Your task to perform on an android device: Open settings on Google Maps Image 0: 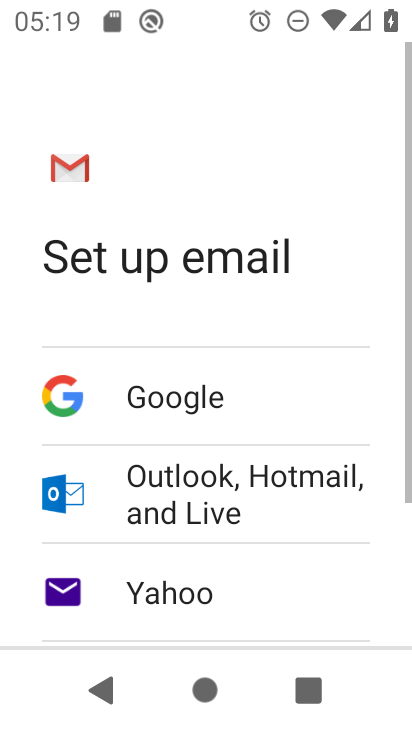
Step 0: press home button
Your task to perform on an android device: Open settings on Google Maps Image 1: 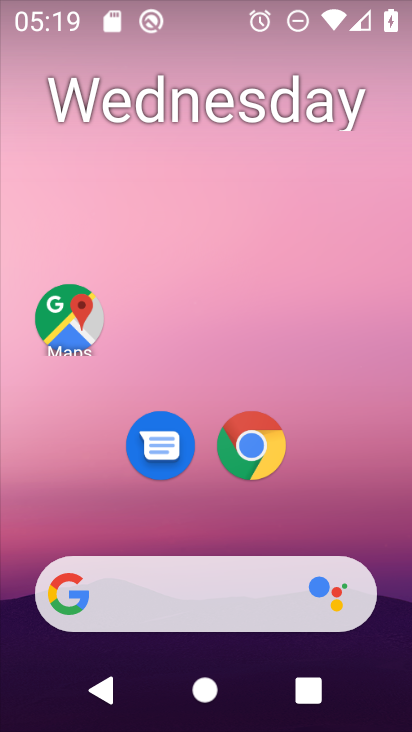
Step 1: click (71, 322)
Your task to perform on an android device: Open settings on Google Maps Image 2: 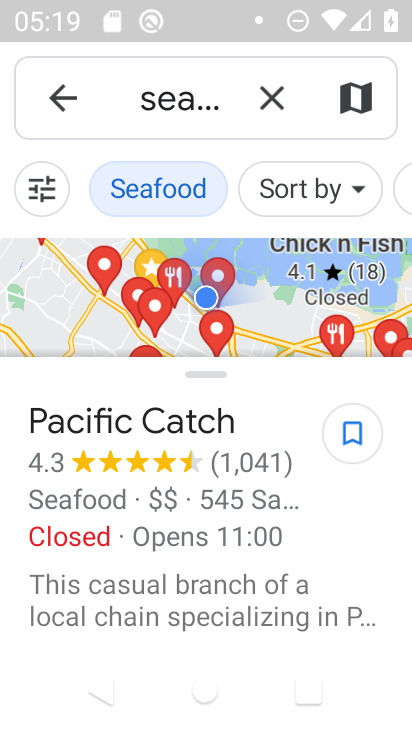
Step 2: click (51, 98)
Your task to perform on an android device: Open settings on Google Maps Image 3: 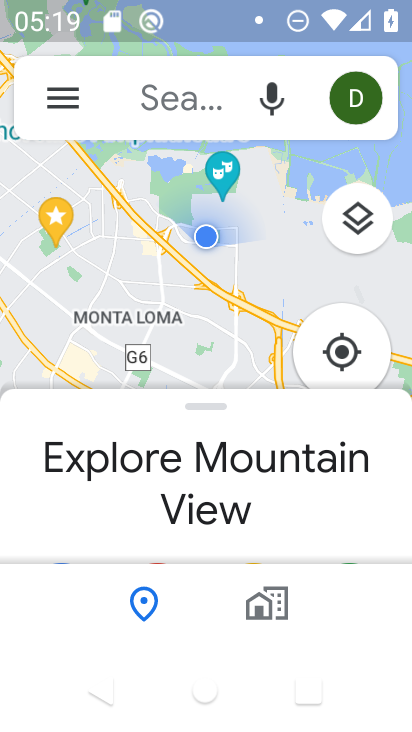
Step 3: click (51, 98)
Your task to perform on an android device: Open settings on Google Maps Image 4: 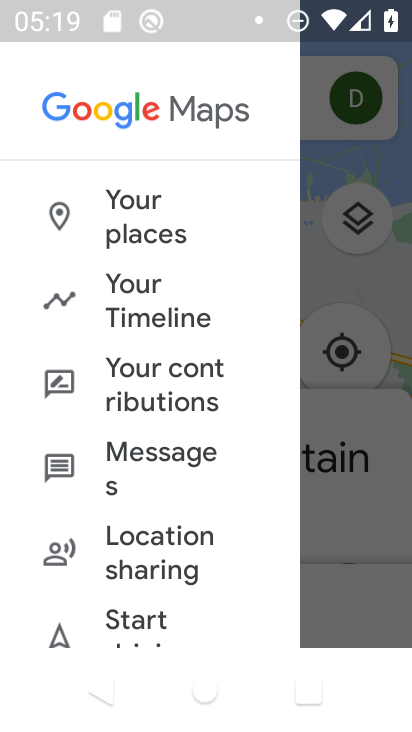
Step 4: drag from (90, 535) to (205, 194)
Your task to perform on an android device: Open settings on Google Maps Image 5: 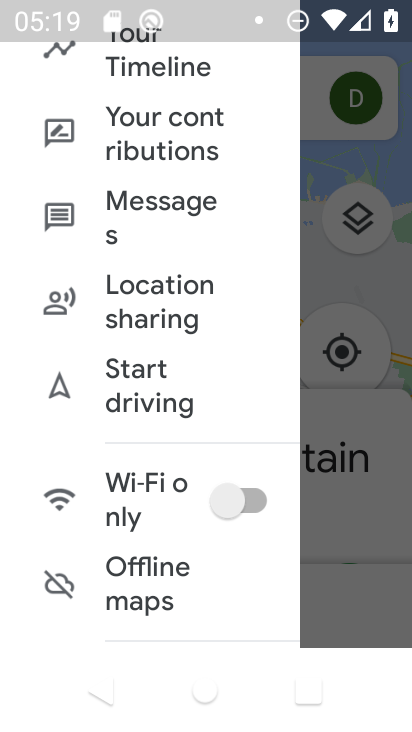
Step 5: drag from (88, 594) to (135, 320)
Your task to perform on an android device: Open settings on Google Maps Image 6: 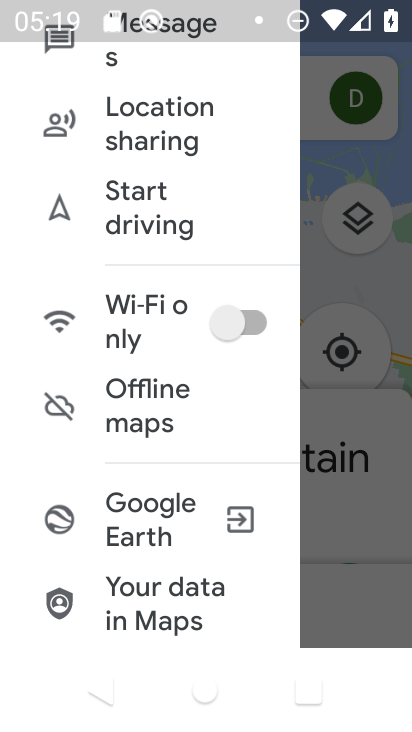
Step 6: drag from (114, 598) to (162, 277)
Your task to perform on an android device: Open settings on Google Maps Image 7: 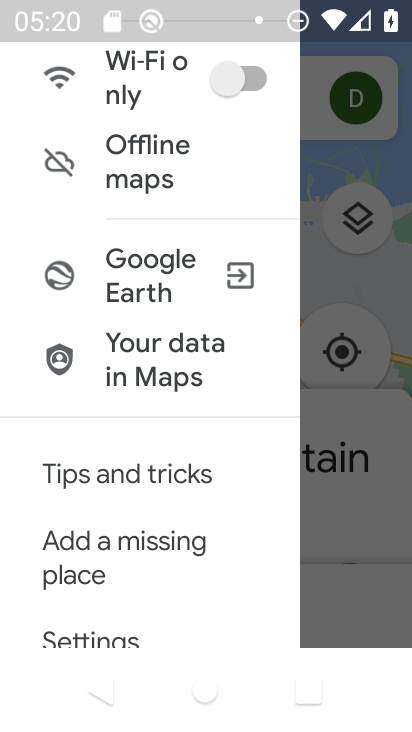
Step 7: drag from (86, 590) to (212, 260)
Your task to perform on an android device: Open settings on Google Maps Image 8: 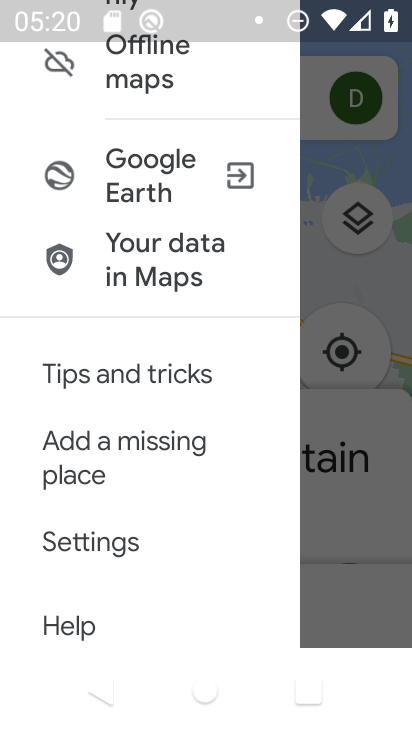
Step 8: click (103, 536)
Your task to perform on an android device: Open settings on Google Maps Image 9: 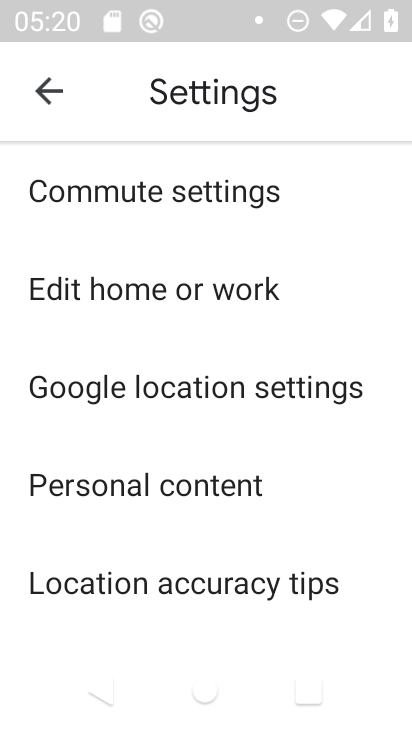
Step 9: task complete